Your task to perform on an android device: turn off smart reply in the gmail app Image 0: 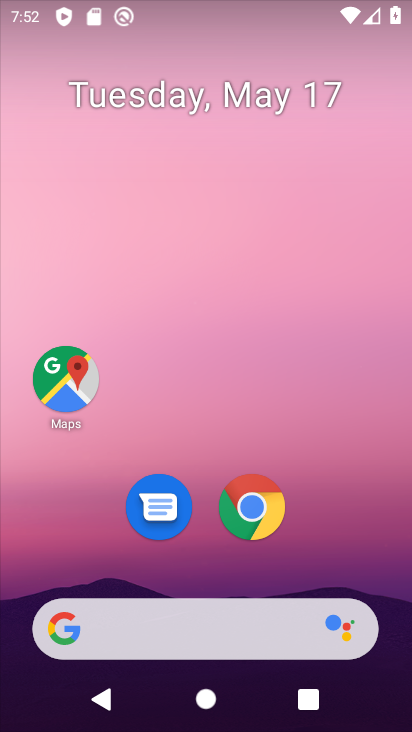
Step 0: drag from (383, 556) to (287, 713)
Your task to perform on an android device: turn off smart reply in the gmail app Image 1: 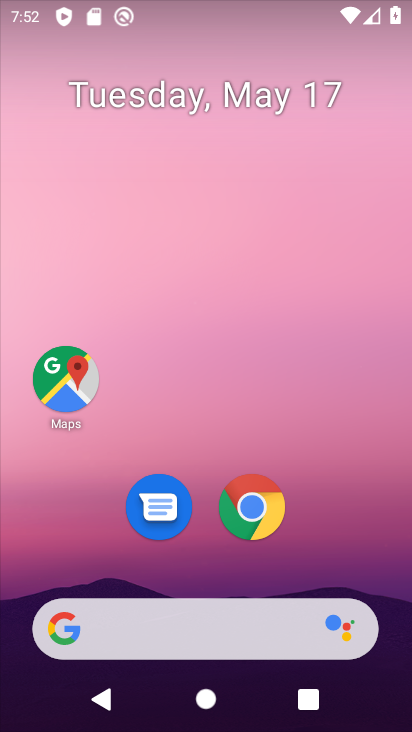
Step 1: drag from (356, 568) to (290, 2)
Your task to perform on an android device: turn off smart reply in the gmail app Image 2: 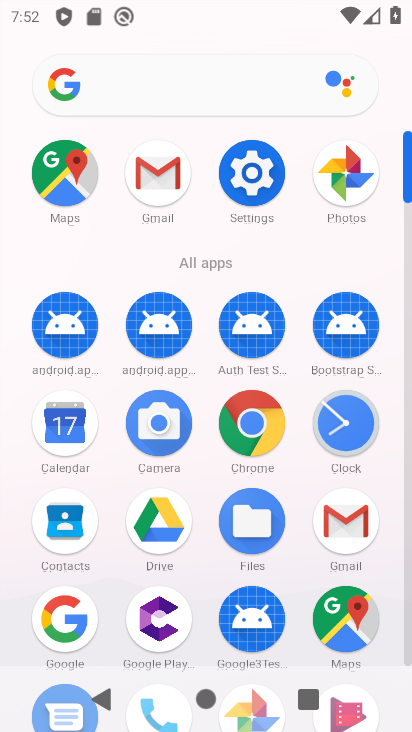
Step 2: click (148, 197)
Your task to perform on an android device: turn off smart reply in the gmail app Image 3: 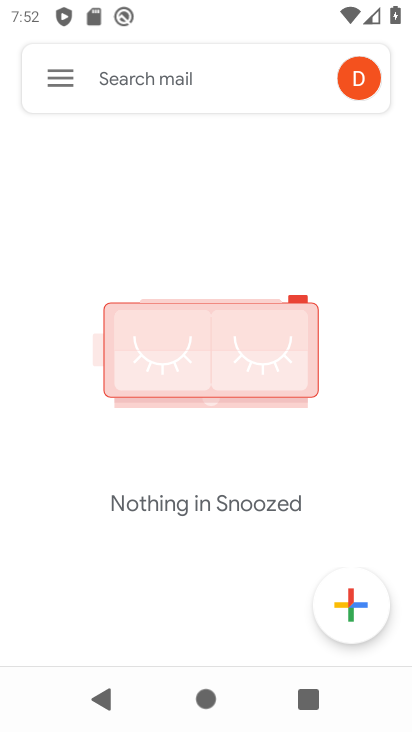
Step 3: click (57, 89)
Your task to perform on an android device: turn off smart reply in the gmail app Image 4: 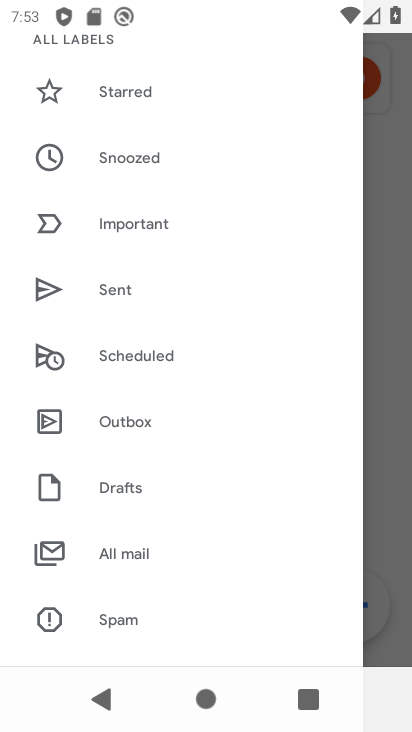
Step 4: drag from (185, 565) to (168, 4)
Your task to perform on an android device: turn off smart reply in the gmail app Image 5: 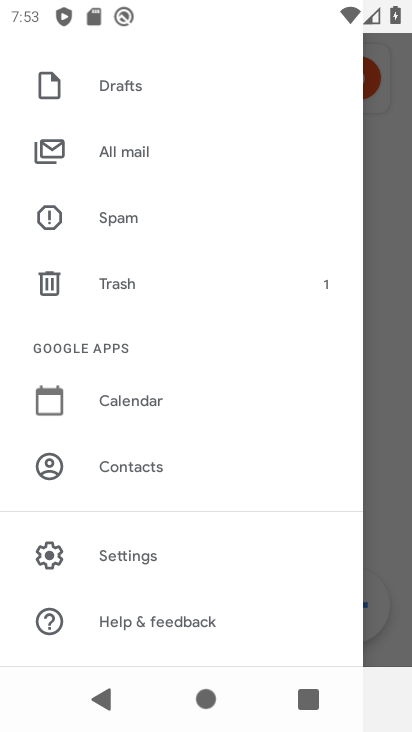
Step 5: click (112, 557)
Your task to perform on an android device: turn off smart reply in the gmail app Image 6: 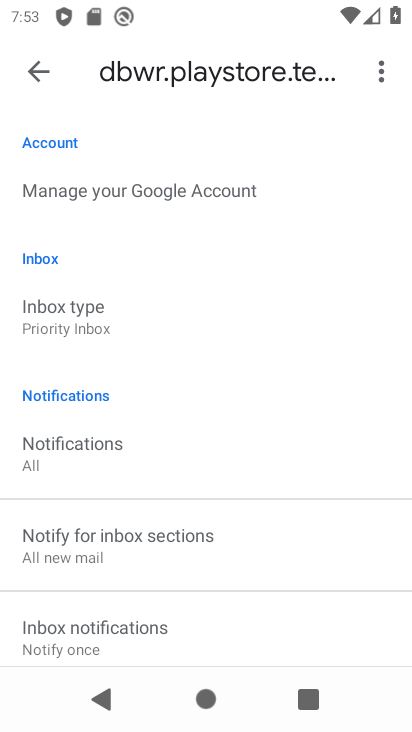
Step 6: drag from (262, 575) to (263, 7)
Your task to perform on an android device: turn off smart reply in the gmail app Image 7: 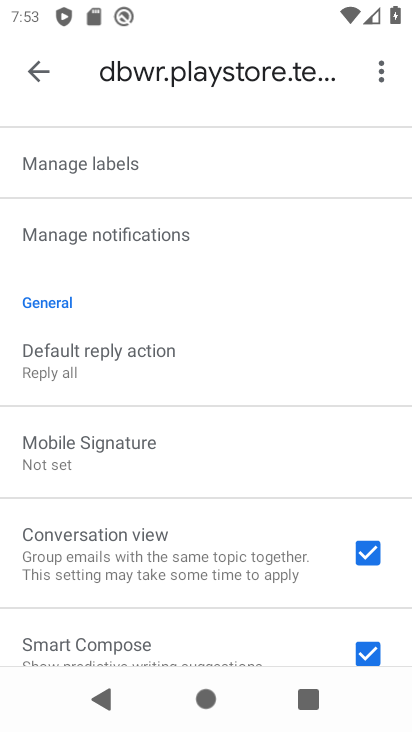
Step 7: drag from (224, 575) to (197, 216)
Your task to perform on an android device: turn off smart reply in the gmail app Image 8: 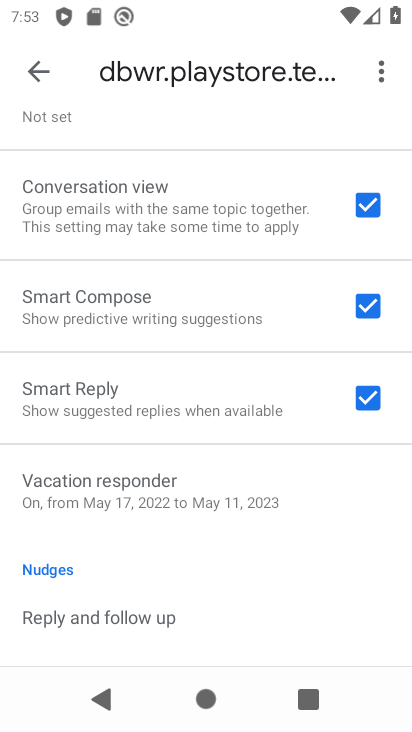
Step 8: click (353, 401)
Your task to perform on an android device: turn off smart reply in the gmail app Image 9: 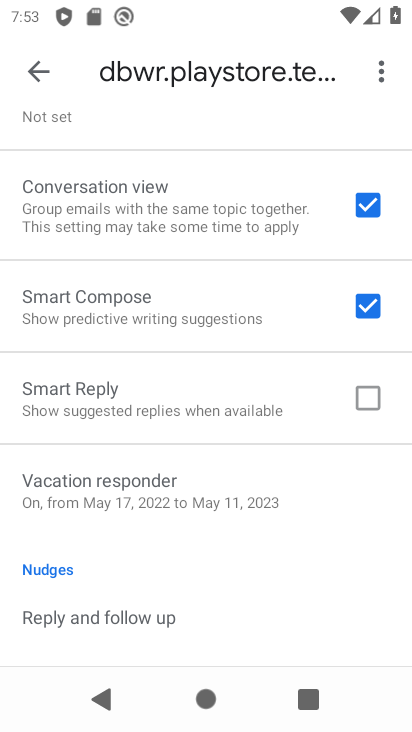
Step 9: task complete